Your task to perform on an android device: Find coffee shops on Maps Image 0: 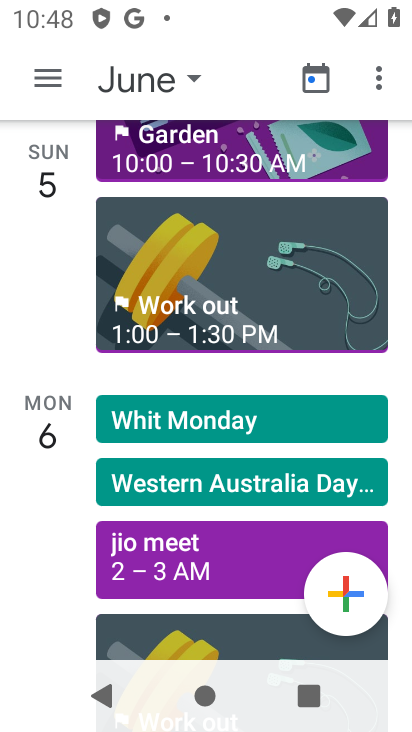
Step 0: drag from (277, 564) to (327, 30)
Your task to perform on an android device: Find coffee shops on Maps Image 1: 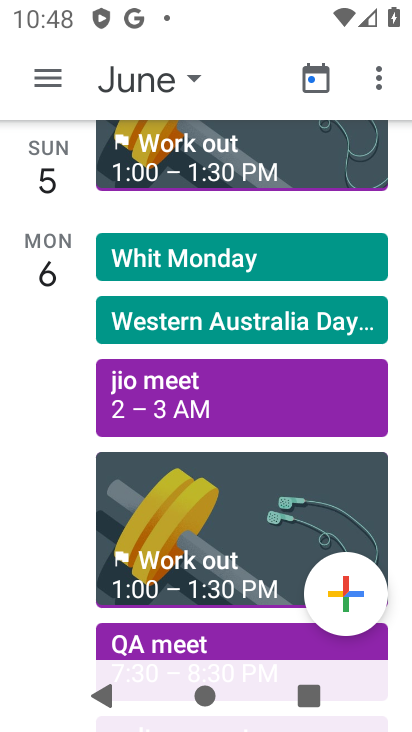
Step 1: press home button
Your task to perform on an android device: Find coffee shops on Maps Image 2: 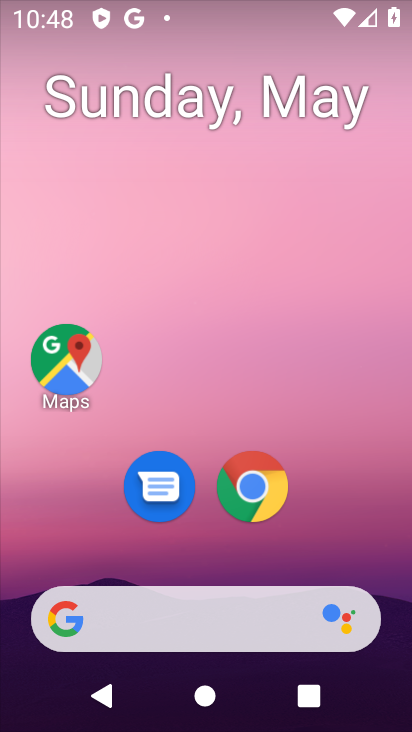
Step 2: click (53, 348)
Your task to perform on an android device: Find coffee shops on Maps Image 3: 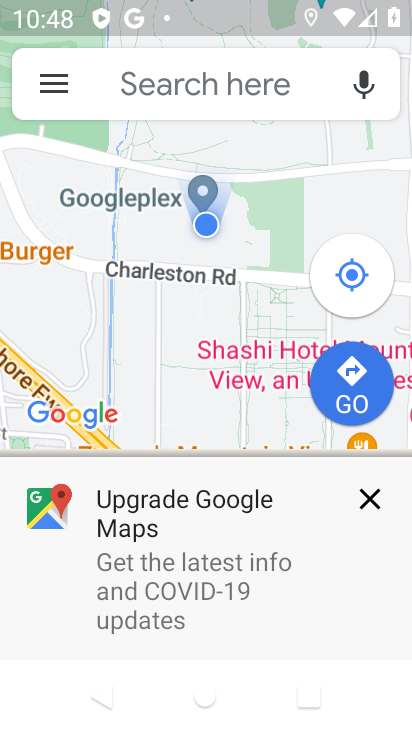
Step 3: click (220, 87)
Your task to perform on an android device: Find coffee shops on Maps Image 4: 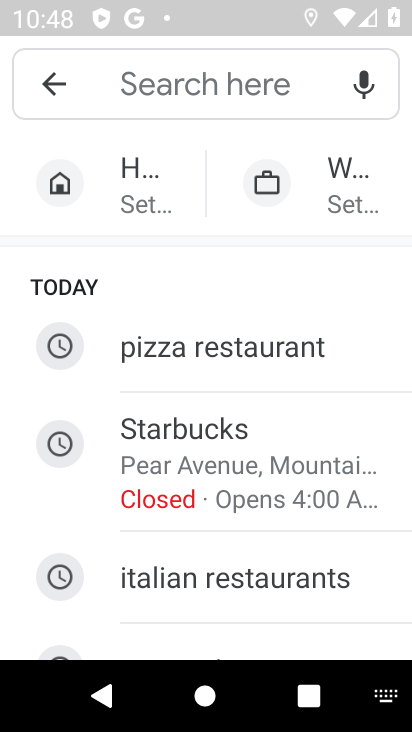
Step 4: drag from (275, 495) to (258, 194)
Your task to perform on an android device: Find coffee shops on Maps Image 5: 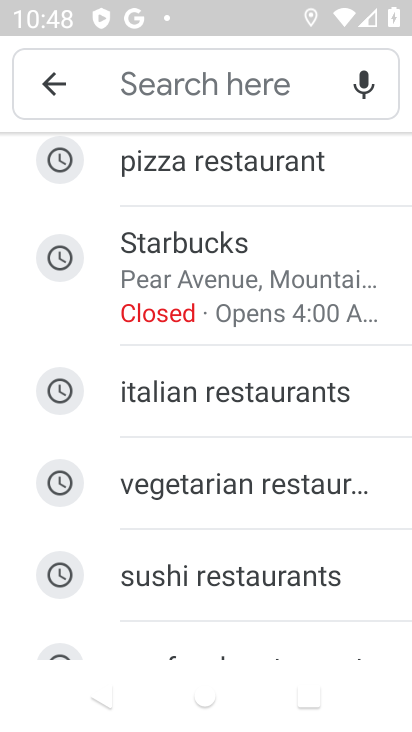
Step 5: drag from (244, 589) to (208, 341)
Your task to perform on an android device: Find coffee shops on Maps Image 6: 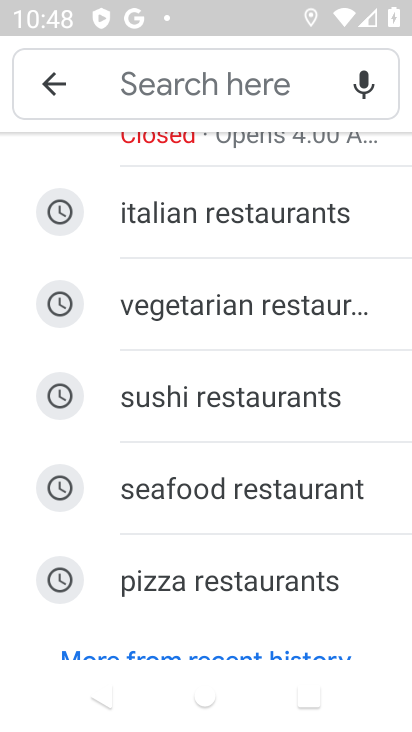
Step 6: drag from (207, 555) to (171, 256)
Your task to perform on an android device: Find coffee shops on Maps Image 7: 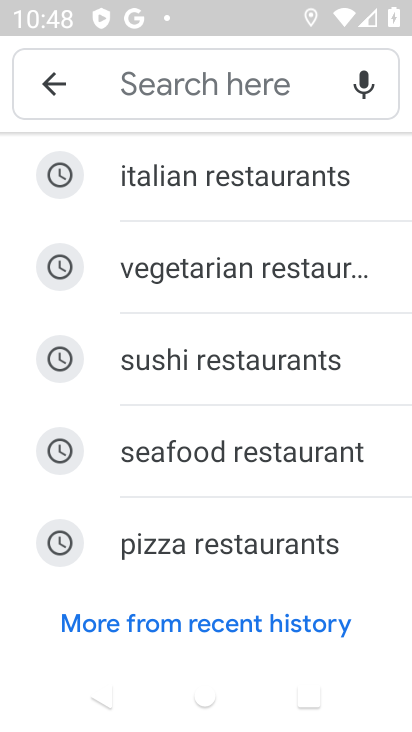
Step 7: click (222, 77)
Your task to perform on an android device: Find coffee shops on Maps Image 8: 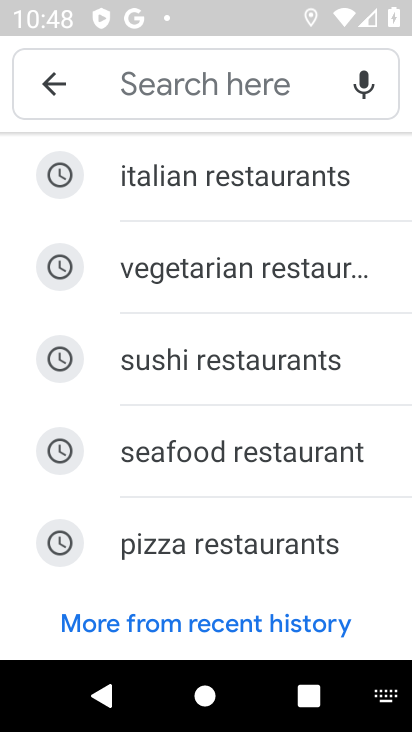
Step 8: type "coffee shops"
Your task to perform on an android device: Find coffee shops on Maps Image 9: 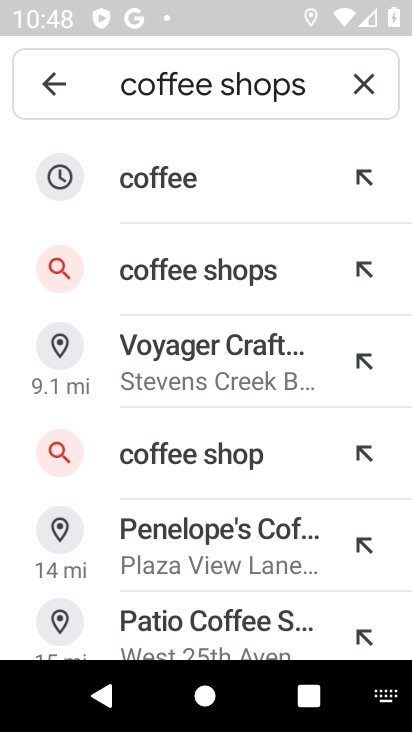
Step 9: click (226, 267)
Your task to perform on an android device: Find coffee shops on Maps Image 10: 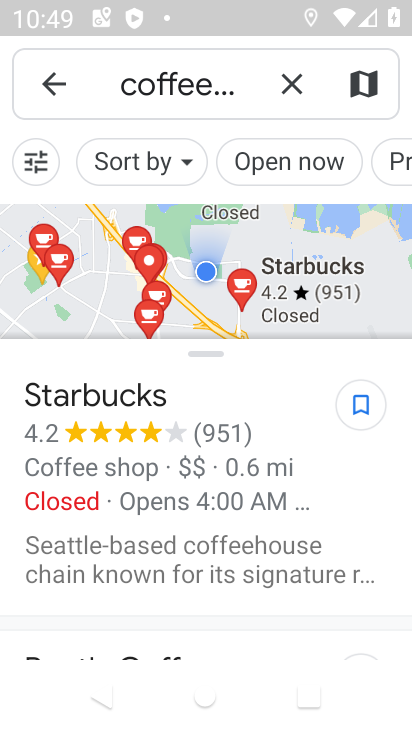
Step 10: task complete